Your task to perform on an android device: turn on the 24-hour format for clock Image 0: 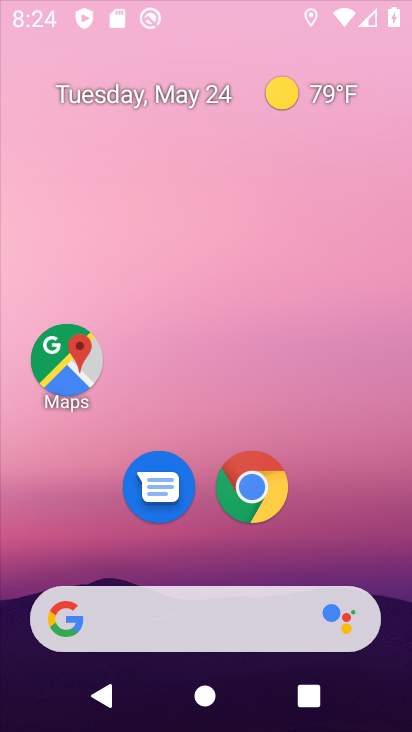
Step 0: click (206, 75)
Your task to perform on an android device: turn on the 24-hour format for clock Image 1: 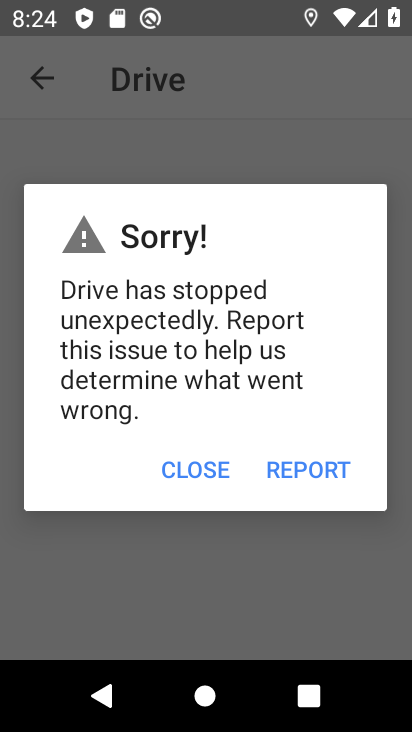
Step 1: press home button
Your task to perform on an android device: turn on the 24-hour format for clock Image 2: 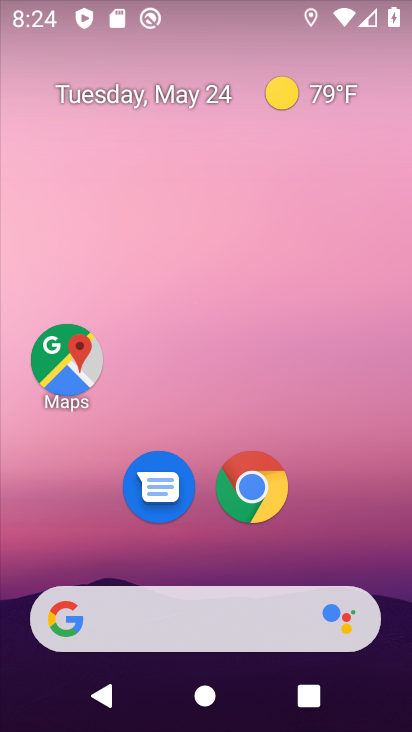
Step 2: drag from (326, 550) to (330, 35)
Your task to perform on an android device: turn on the 24-hour format for clock Image 3: 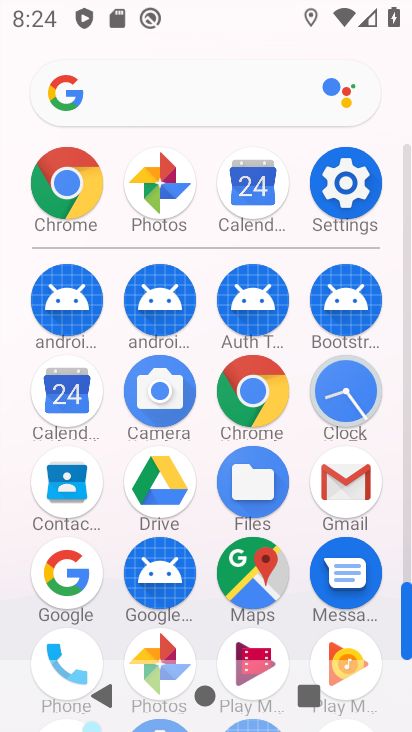
Step 3: click (365, 402)
Your task to perform on an android device: turn on the 24-hour format for clock Image 4: 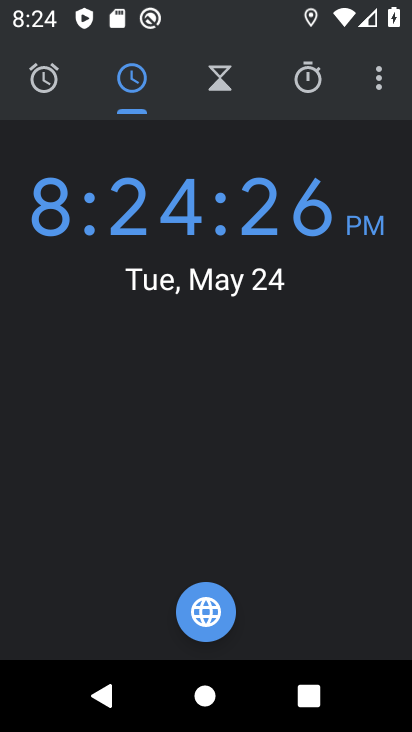
Step 4: click (371, 70)
Your task to perform on an android device: turn on the 24-hour format for clock Image 5: 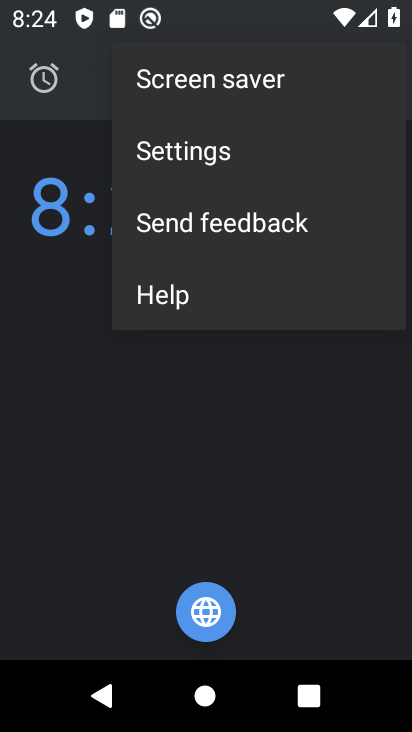
Step 5: click (232, 160)
Your task to perform on an android device: turn on the 24-hour format for clock Image 6: 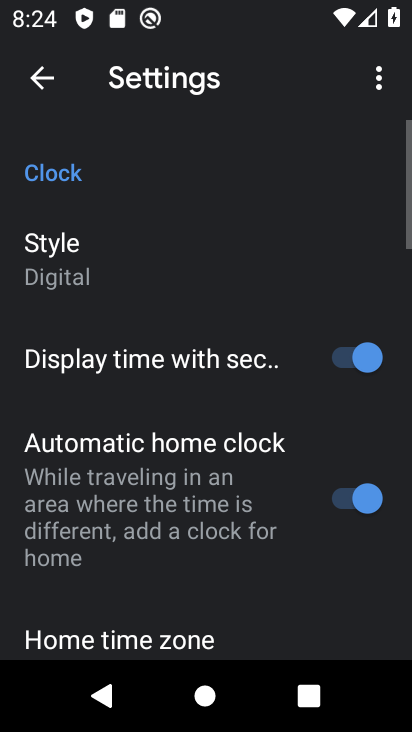
Step 6: drag from (295, 578) to (371, 311)
Your task to perform on an android device: turn on the 24-hour format for clock Image 7: 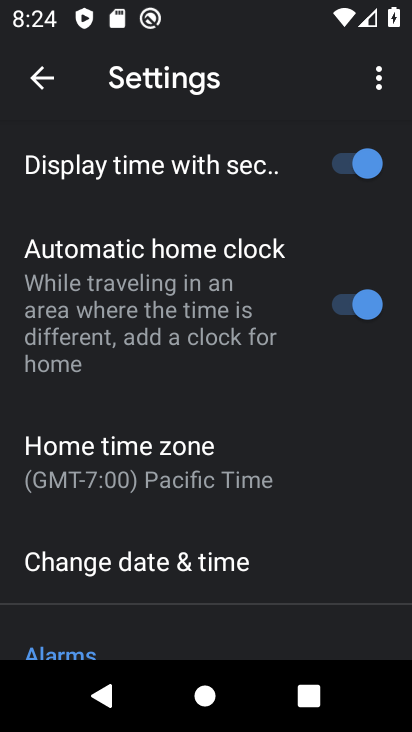
Step 7: click (170, 564)
Your task to perform on an android device: turn on the 24-hour format for clock Image 8: 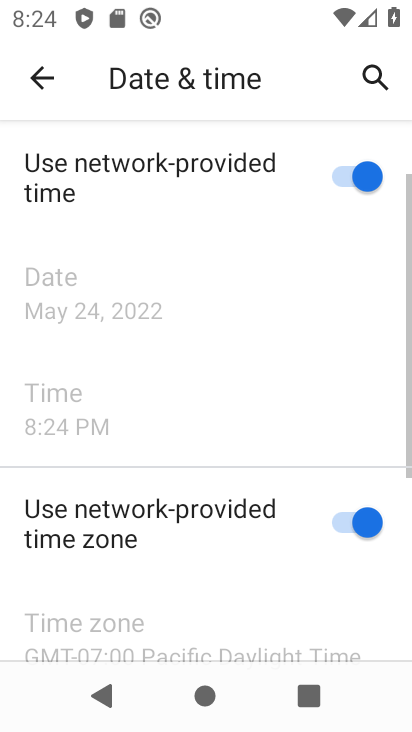
Step 8: drag from (245, 584) to (297, 143)
Your task to perform on an android device: turn on the 24-hour format for clock Image 9: 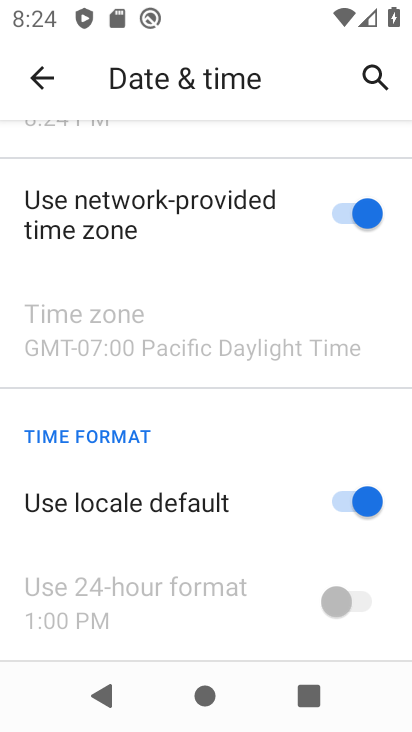
Step 9: click (352, 503)
Your task to perform on an android device: turn on the 24-hour format for clock Image 10: 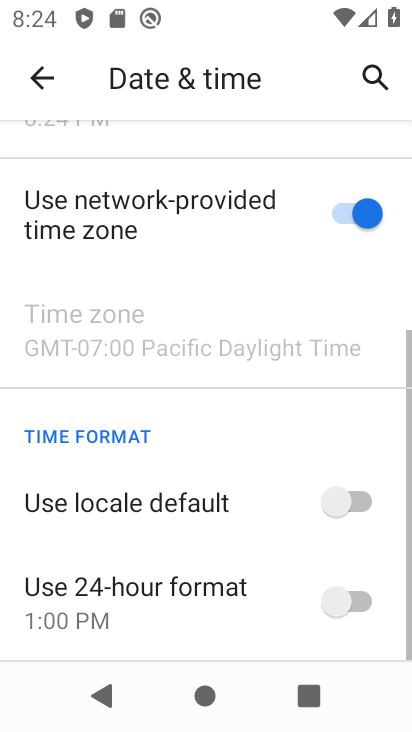
Step 10: click (360, 604)
Your task to perform on an android device: turn on the 24-hour format for clock Image 11: 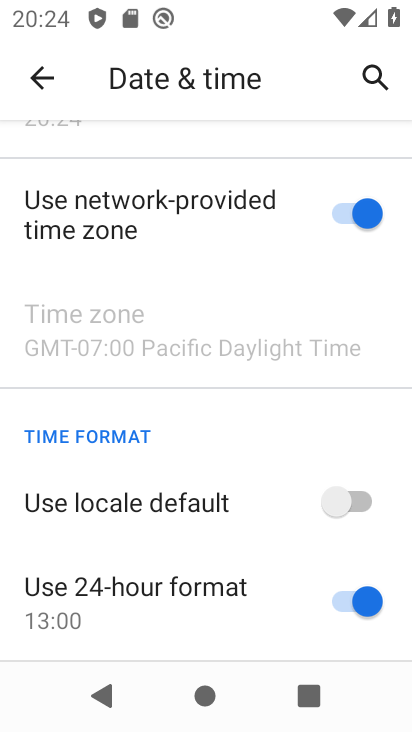
Step 11: task complete